Your task to perform on an android device: Open maps Image 0: 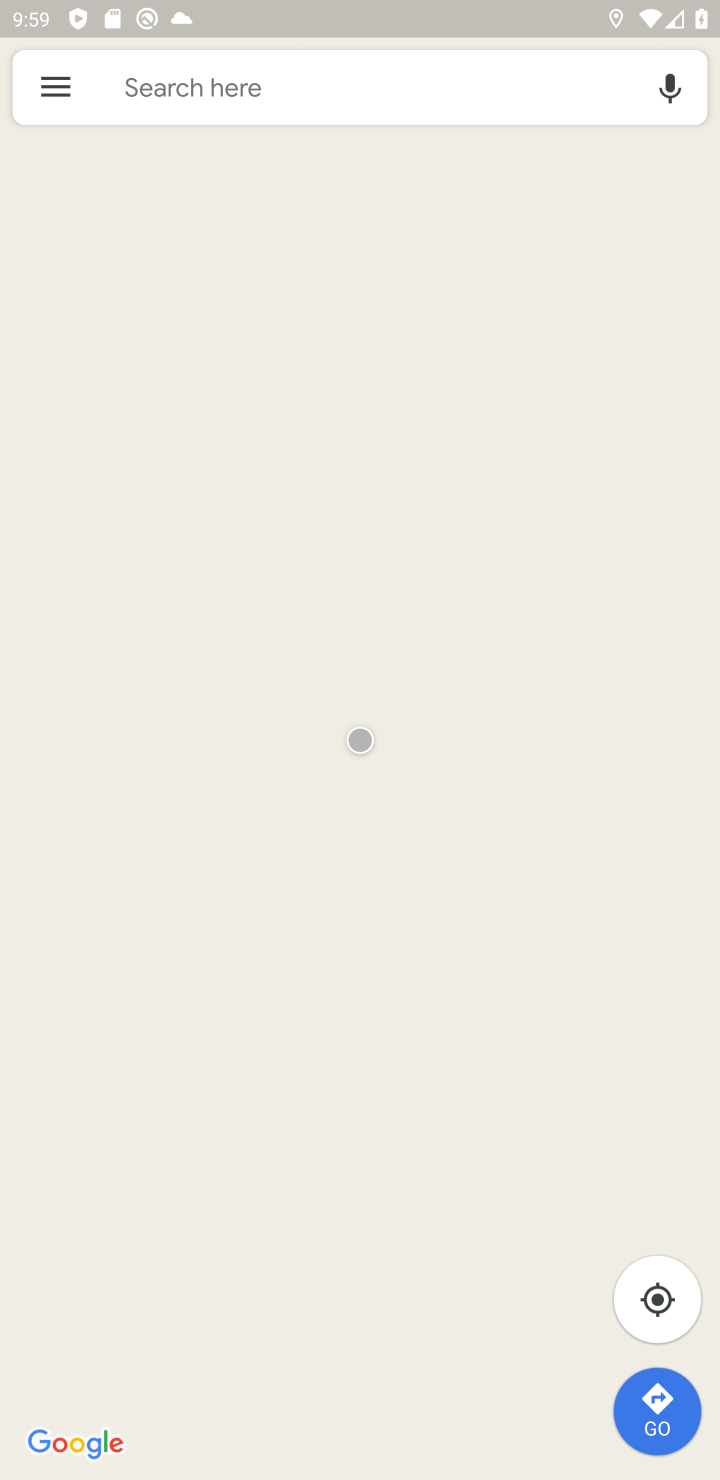
Step 0: click (667, 77)
Your task to perform on an android device: Open maps Image 1: 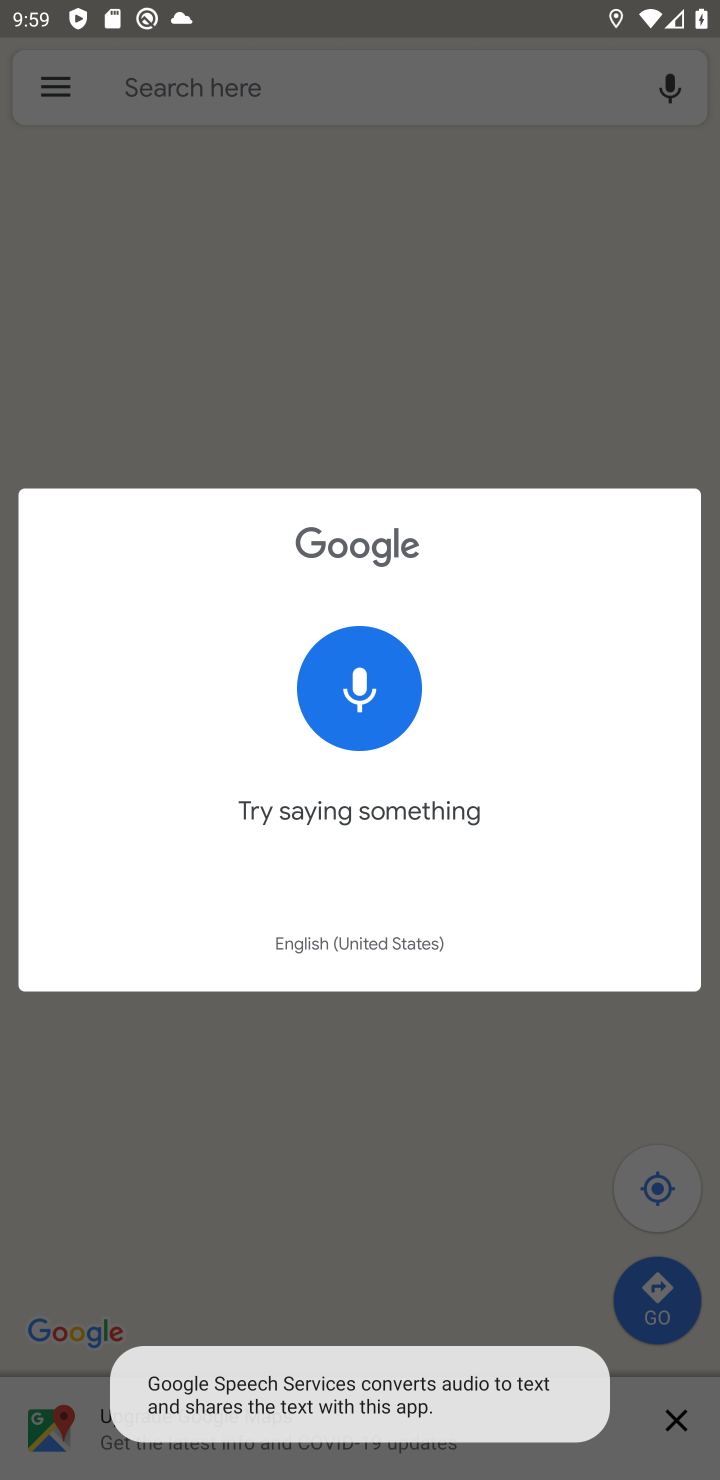
Step 1: click (271, 368)
Your task to perform on an android device: Open maps Image 2: 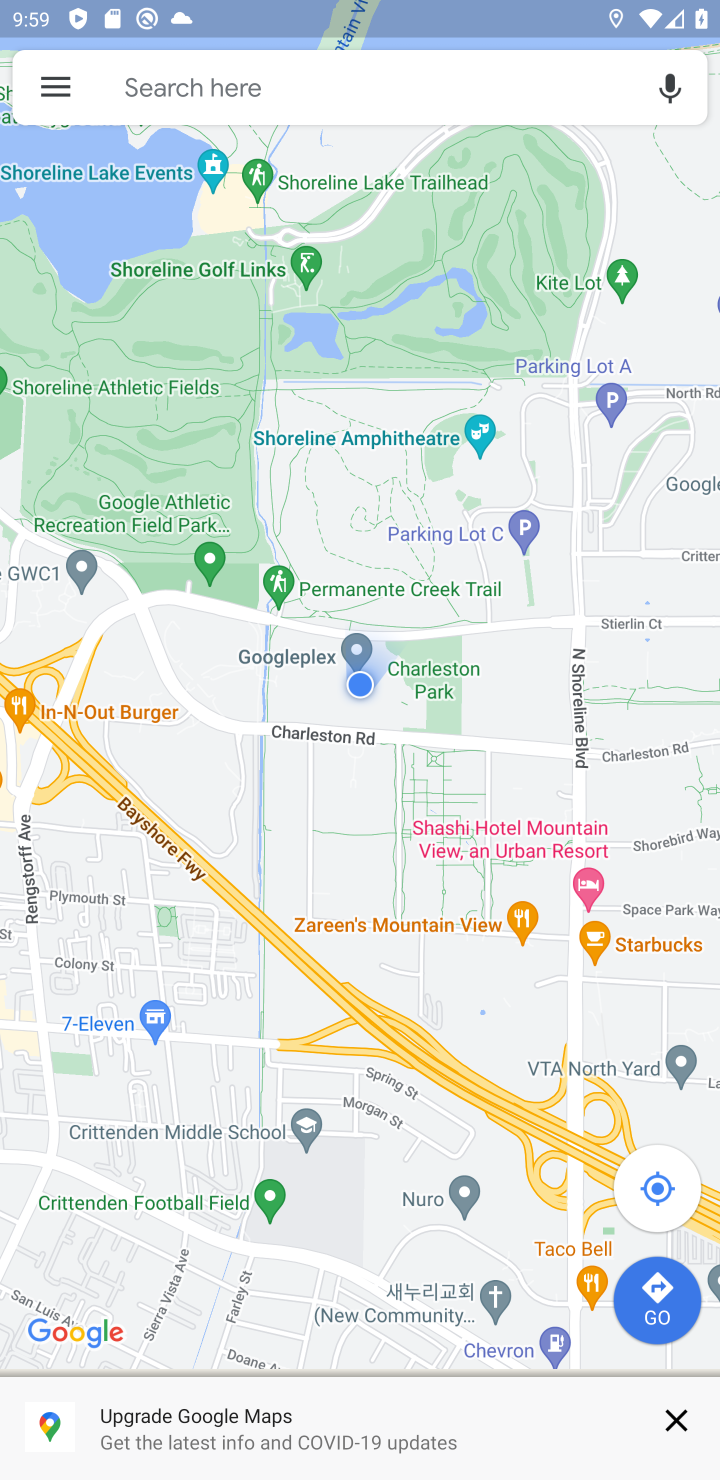
Step 2: task complete